Your task to perform on an android device: delete location history Image 0: 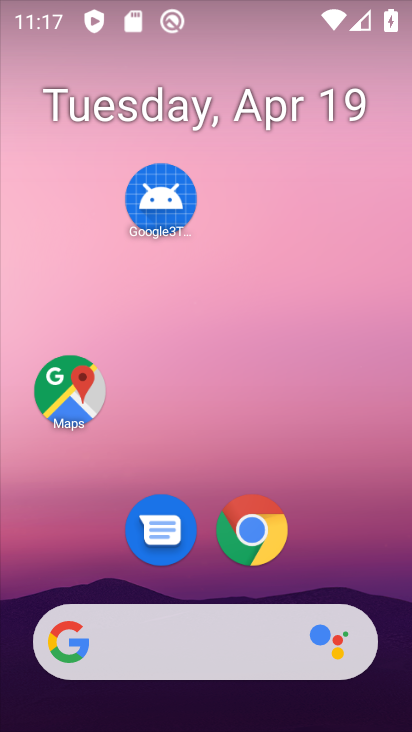
Step 0: drag from (368, 276) to (371, 167)
Your task to perform on an android device: delete location history Image 1: 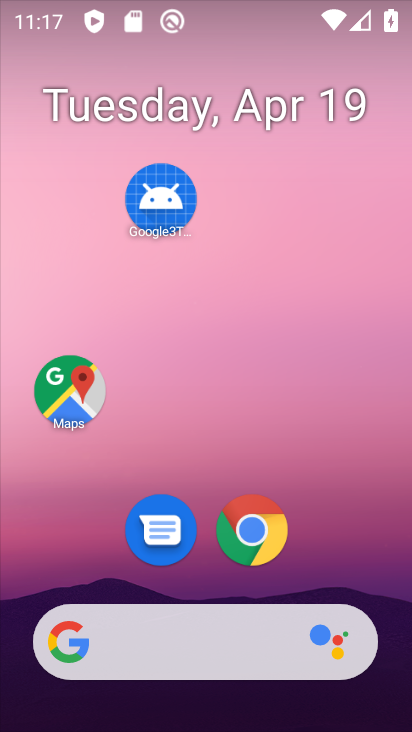
Step 1: drag from (345, 482) to (344, 75)
Your task to perform on an android device: delete location history Image 2: 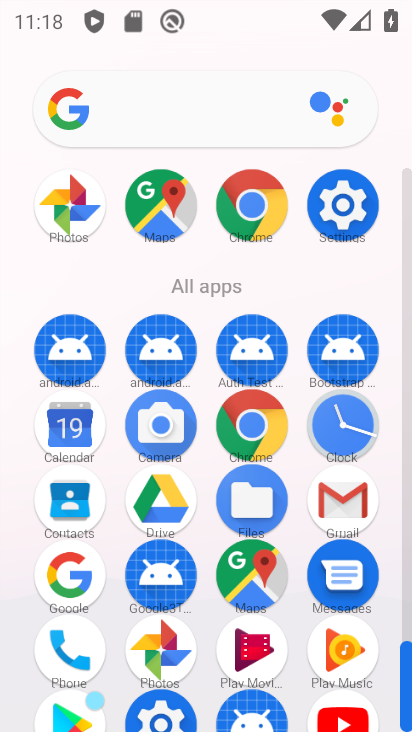
Step 2: click (164, 212)
Your task to perform on an android device: delete location history Image 3: 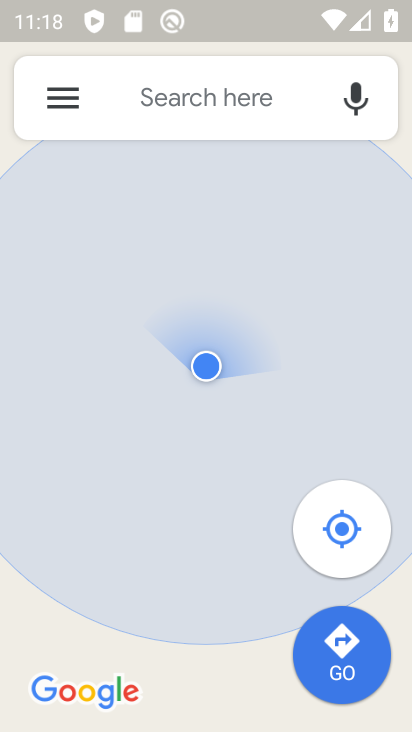
Step 3: click (72, 88)
Your task to perform on an android device: delete location history Image 4: 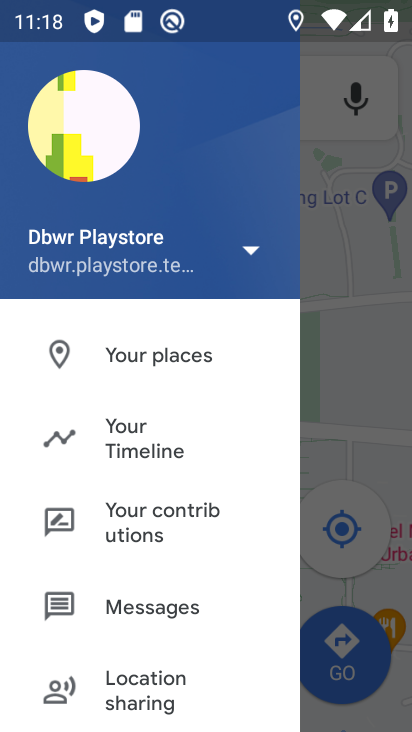
Step 4: drag from (141, 522) to (276, 37)
Your task to perform on an android device: delete location history Image 5: 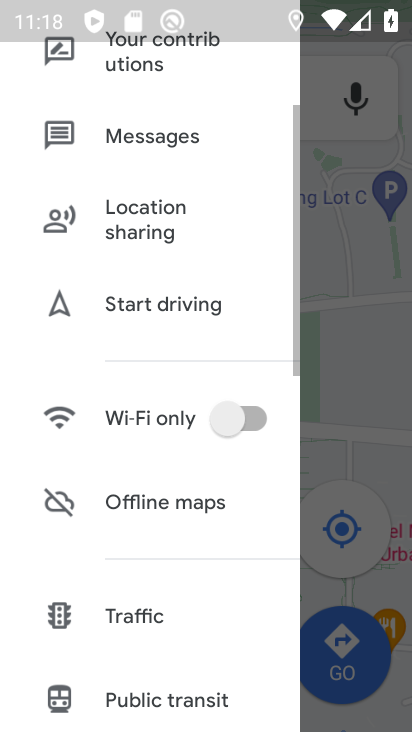
Step 5: drag from (116, 558) to (233, 179)
Your task to perform on an android device: delete location history Image 6: 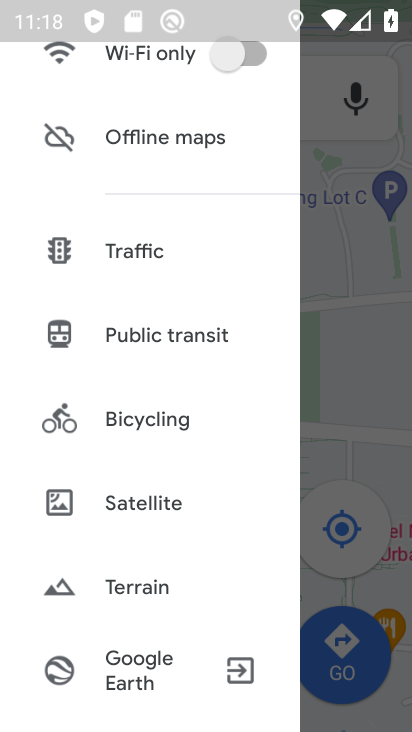
Step 6: drag from (178, 601) to (259, 156)
Your task to perform on an android device: delete location history Image 7: 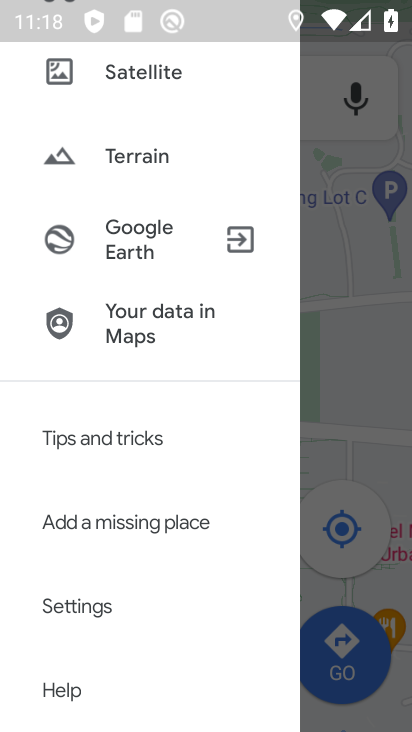
Step 7: click (72, 603)
Your task to perform on an android device: delete location history Image 8: 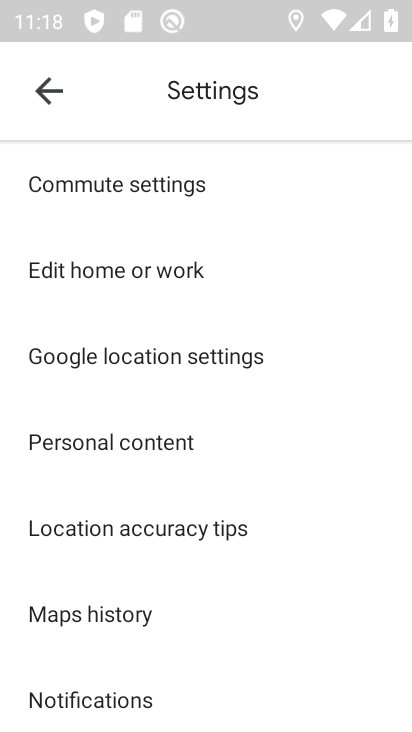
Step 8: drag from (236, 597) to (293, 210)
Your task to perform on an android device: delete location history Image 9: 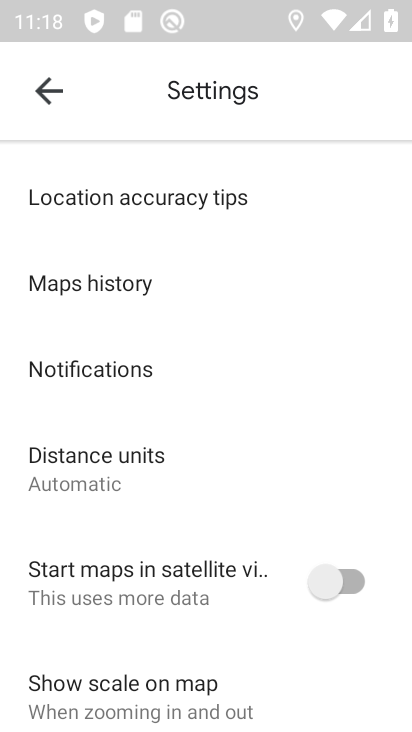
Step 9: click (95, 279)
Your task to perform on an android device: delete location history Image 10: 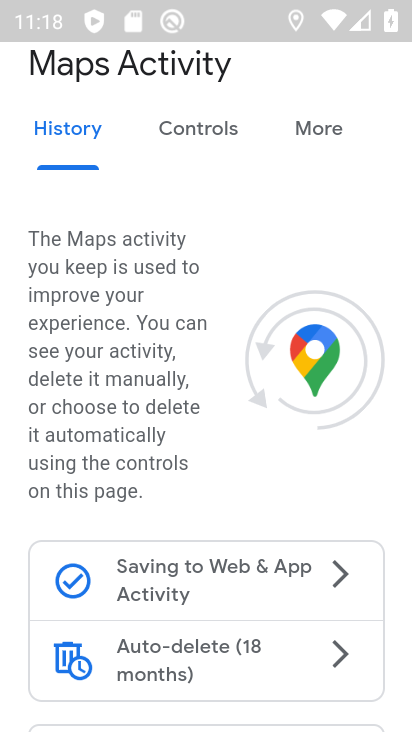
Step 10: drag from (194, 570) to (232, 187)
Your task to perform on an android device: delete location history Image 11: 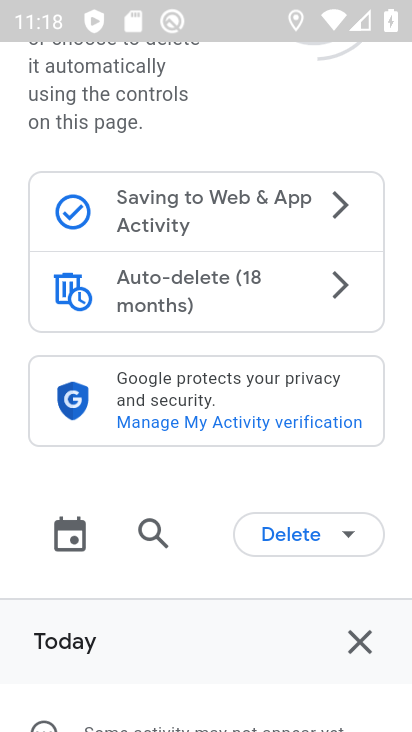
Step 11: click (337, 541)
Your task to perform on an android device: delete location history Image 12: 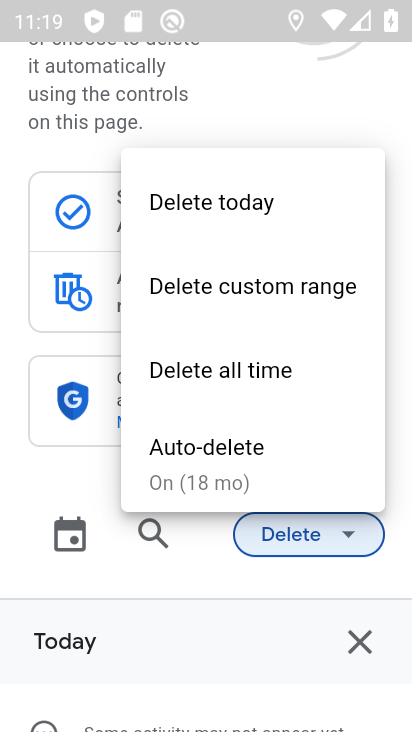
Step 12: click (221, 375)
Your task to perform on an android device: delete location history Image 13: 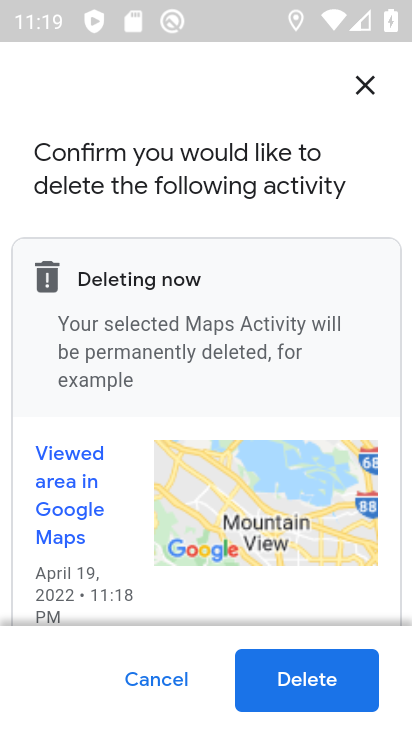
Step 13: click (354, 678)
Your task to perform on an android device: delete location history Image 14: 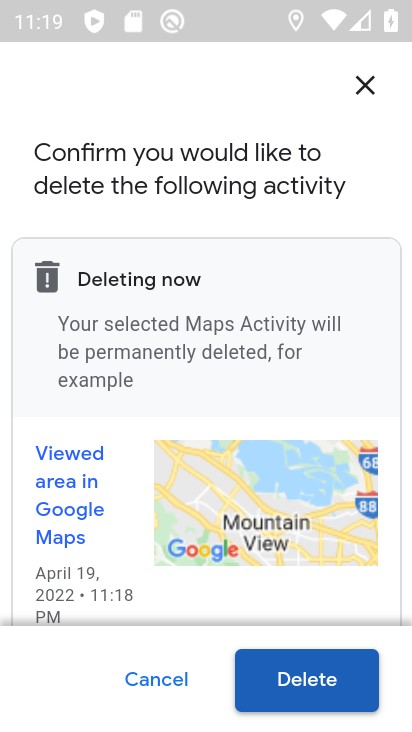
Step 14: click (316, 689)
Your task to perform on an android device: delete location history Image 15: 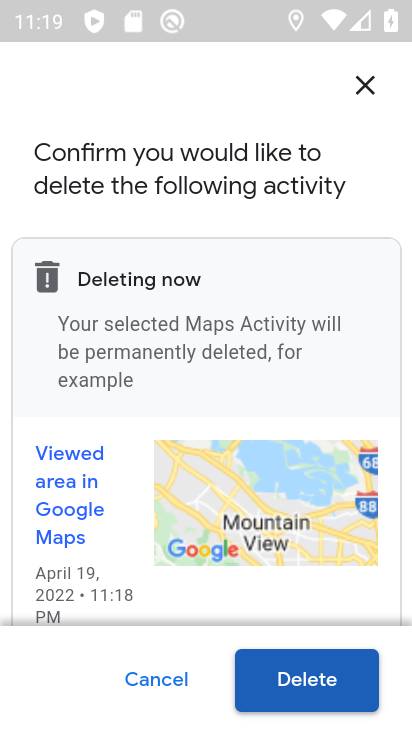
Step 15: click (314, 682)
Your task to perform on an android device: delete location history Image 16: 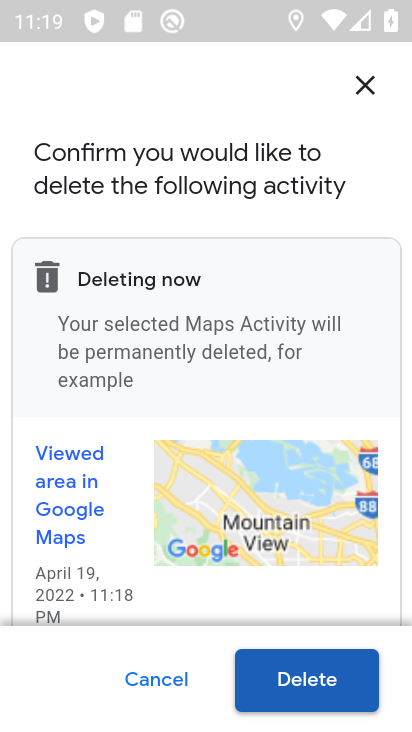
Step 16: click (314, 681)
Your task to perform on an android device: delete location history Image 17: 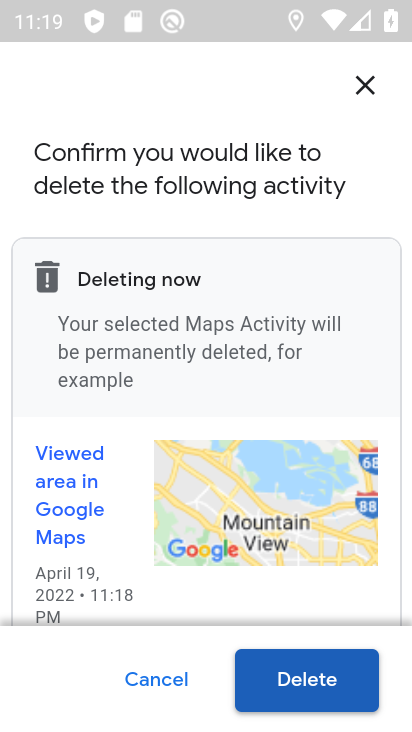
Step 17: click (333, 678)
Your task to perform on an android device: delete location history Image 18: 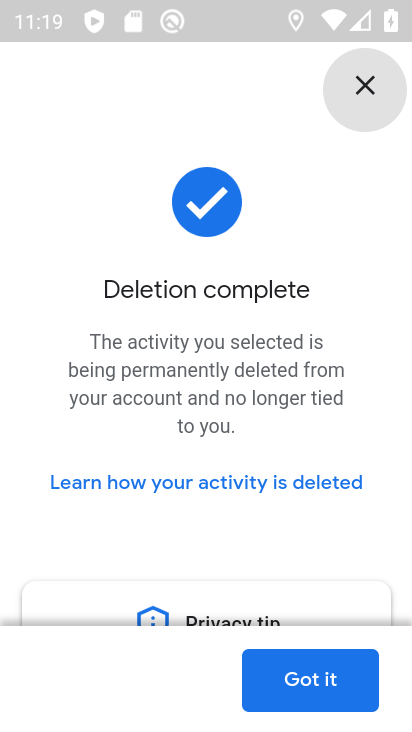
Step 18: task complete